Your task to perform on an android device: change notifications settings Image 0: 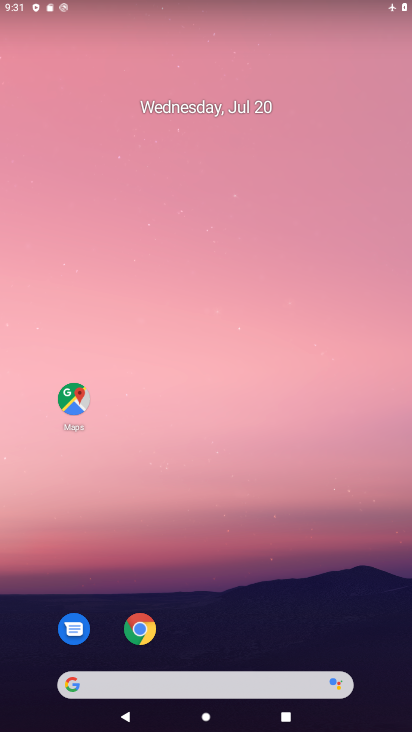
Step 0: drag from (255, 458) to (256, 2)
Your task to perform on an android device: change notifications settings Image 1: 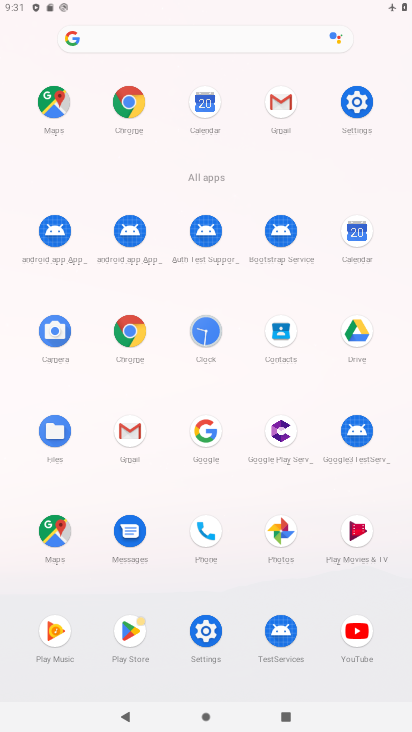
Step 1: click (358, 114)
Your task to perform on an android device: change notifications settings Image 2: 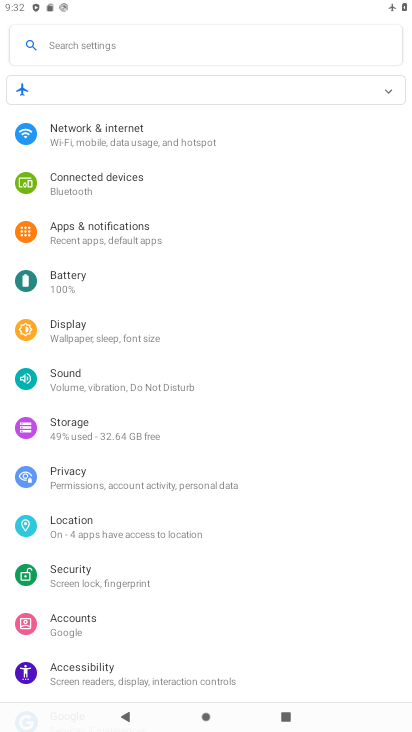
Step 2: click (98, 225)
Your task to perform on an android device: change notifications settings Image 3: 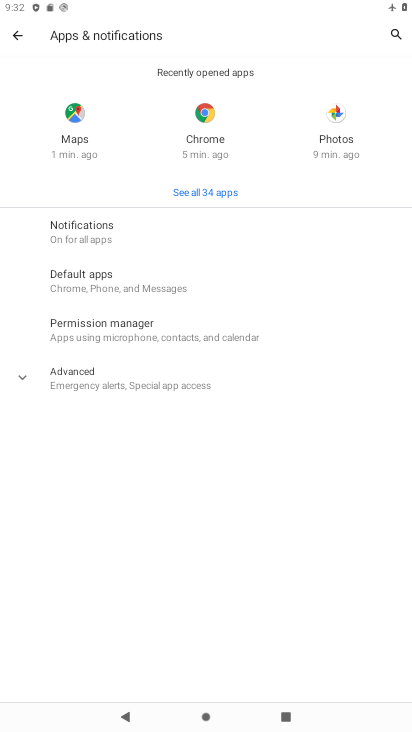
Step 3: click (98, 235)
Your task to perform on an android device: change notifications settings Image 4: 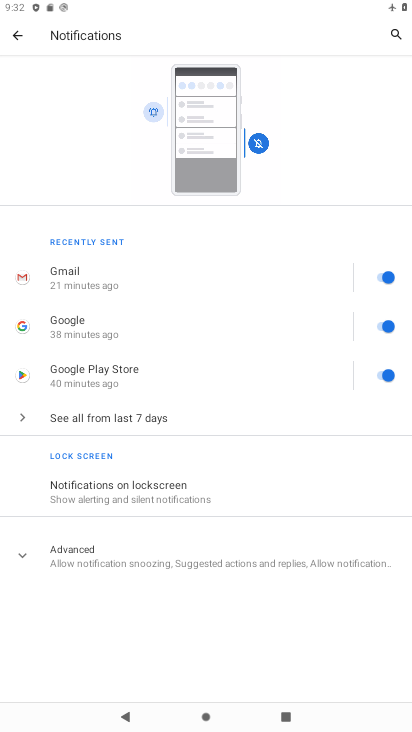
Step 4: click (390, 271)
Your task to perform on an android device: change notifications settings Image 5: 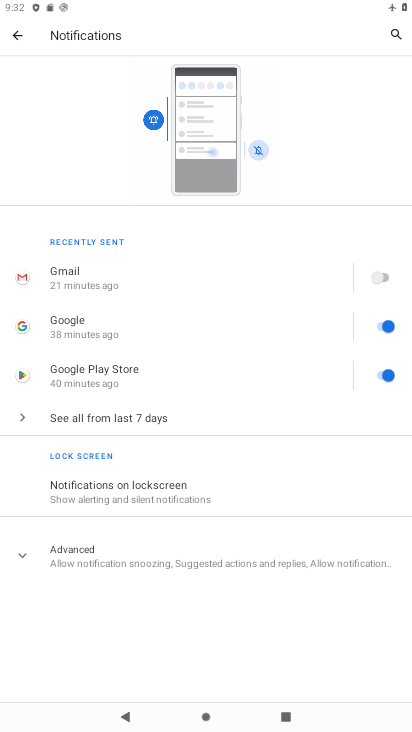
Step 5: task complete